Your task to perform on an android device: Clear all items from cart on target.com. Add "usb-a to usb-b" to the cart on target.com, then select checkout. Image 0: 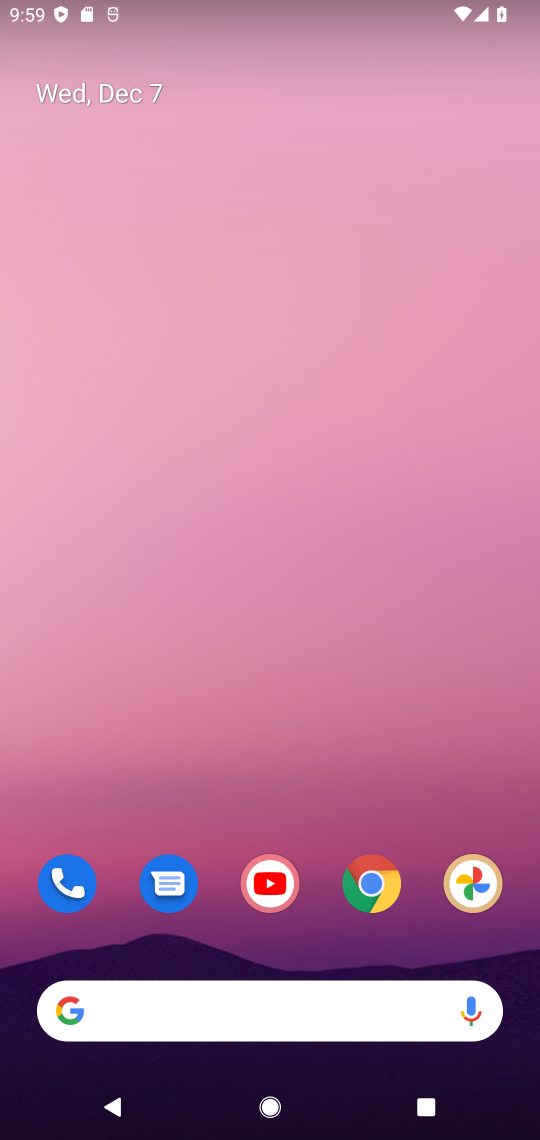
Step 0: drag from (267, 943) to (299, 235)
Your task to perform on an android device: Clear all items from cart on target.com. Add "usb-a to usb-b" to the cart on target.com, then select checkout. Image 1: 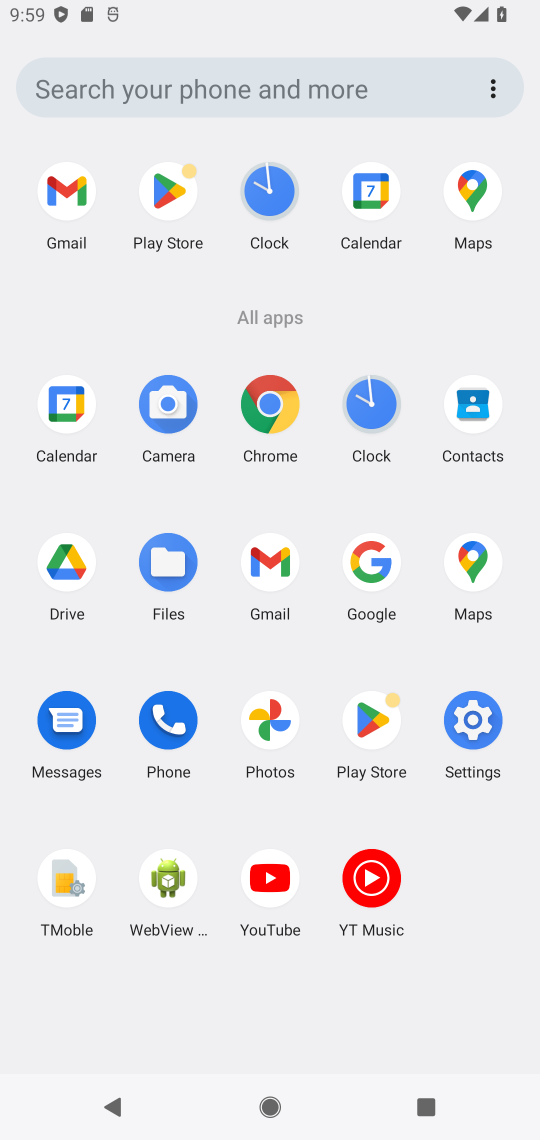
Step 1: click (359, 558)
Your task to perform on an android device: Clear all items from cart on target.com. Add "usb-a to usb-b" to the cart on target.com, then select checkout. Image 2: 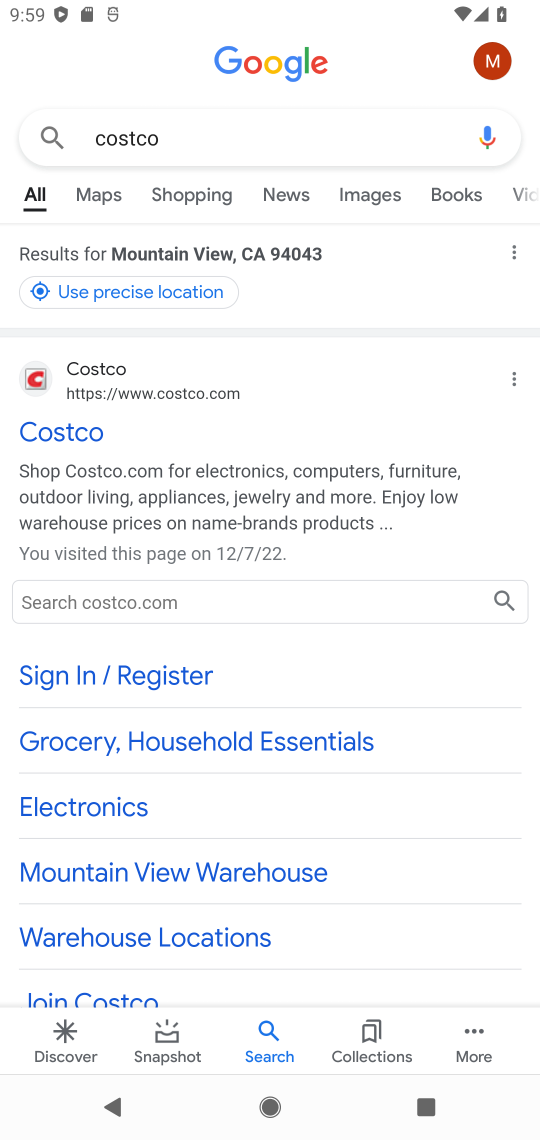
Step 2: click (196, 140)
Your task to perform on an android device: Clear all items from cart on target.com. Add "usb-a to usb-b" to the cart on target.com, then select checkout. Image 3: 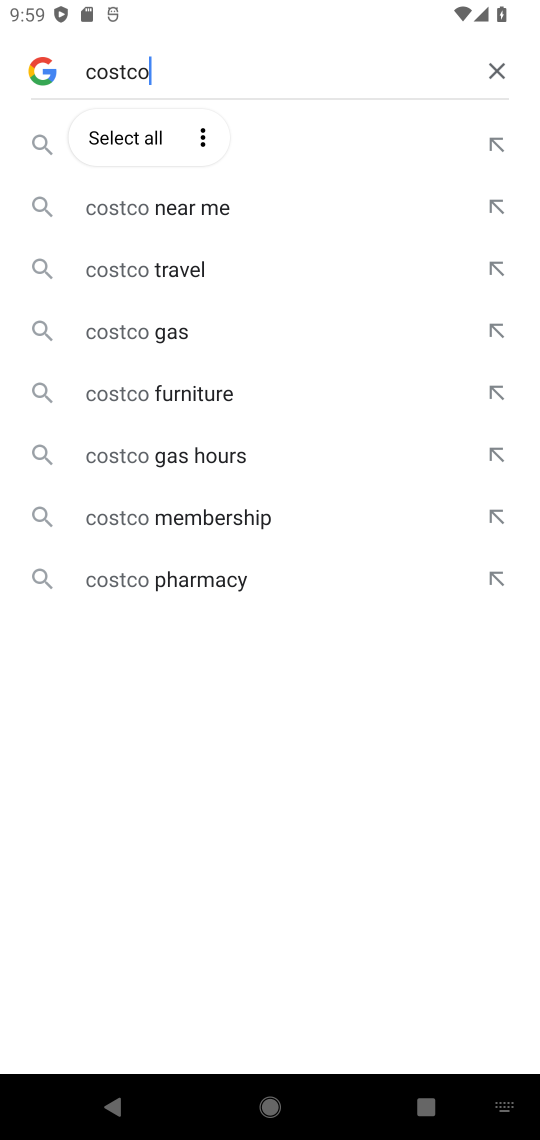
Step 3: click (503, 64)
Your task to perform on an android device: Clear all items from cart on target.com. Add "usb-a to usb-b" to the cart on target.com, then select checkout. Image 4: 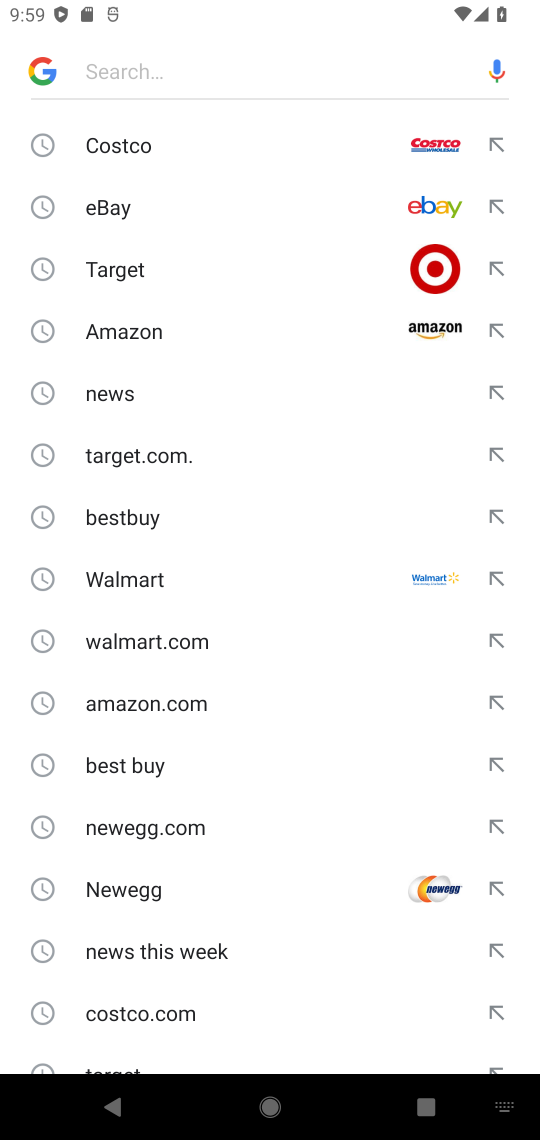
Step 4: click (431, 269)
Your task to perform on an android device: Clear all items from cart on target.com. Add "usb-a to usb-b" to the cart on target.com, then select checkout. Image 5: 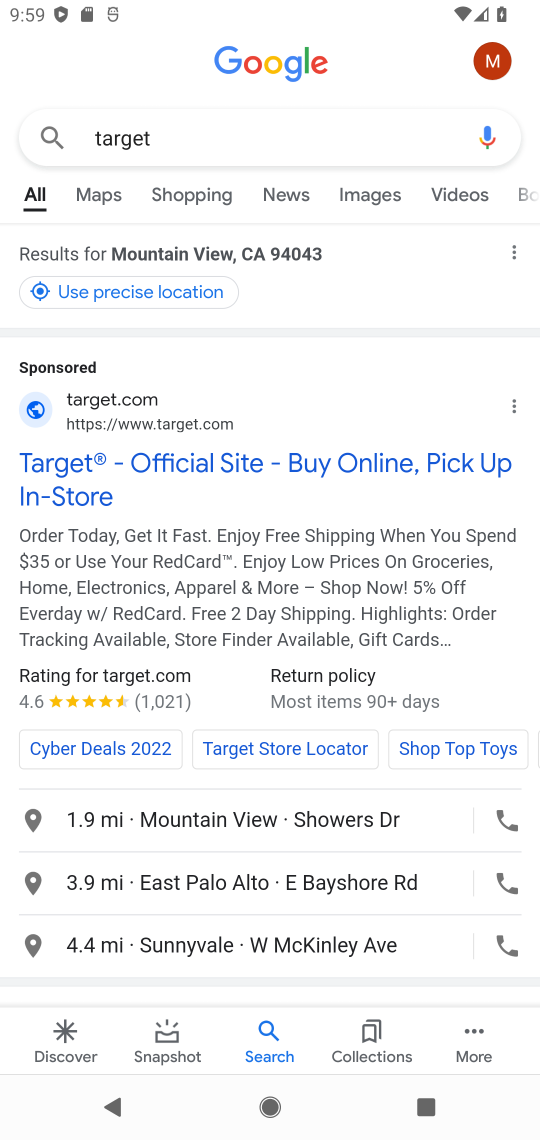
Step 5: click (224, 462)
Your task to perform on an android device: Clear all items from cart on target.com. Add "usb-a to usb-b" to the cart on target.com, then select checkout. Image 6: 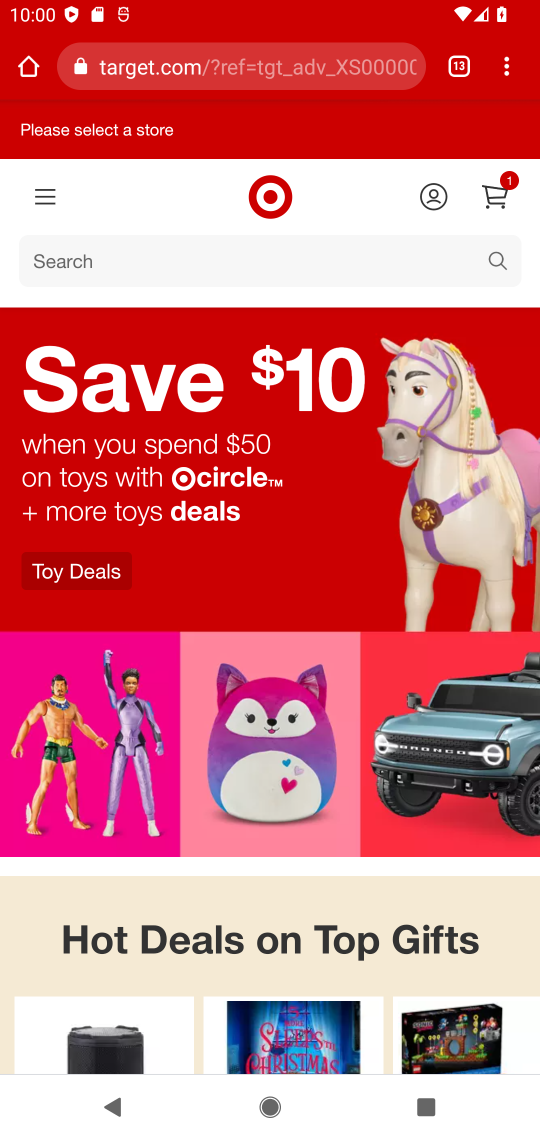
Step 6: click (183, 268)
Your task to perform on an android device: Clear all items from cart on target.com. Add "usb-a to usb-b" to the cart on target.com, then select checkout. Image 7: 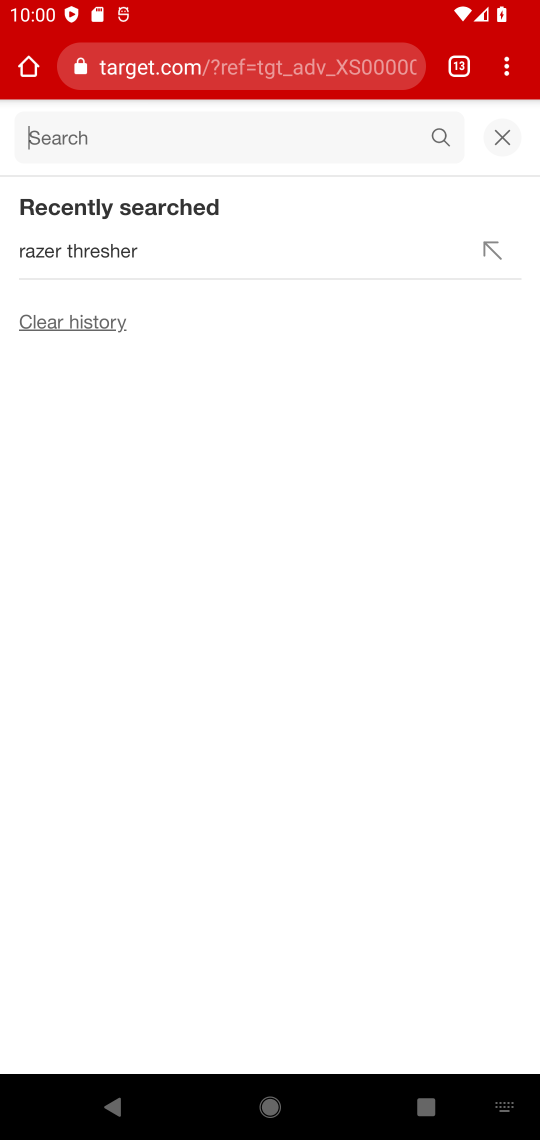
Step 7: click (498, 132)
Your task to perform on an android device: Clear all items from cart on target.com. Add "usb-a to usb-b" to the cart on target.com, then select checkout. Image 8: 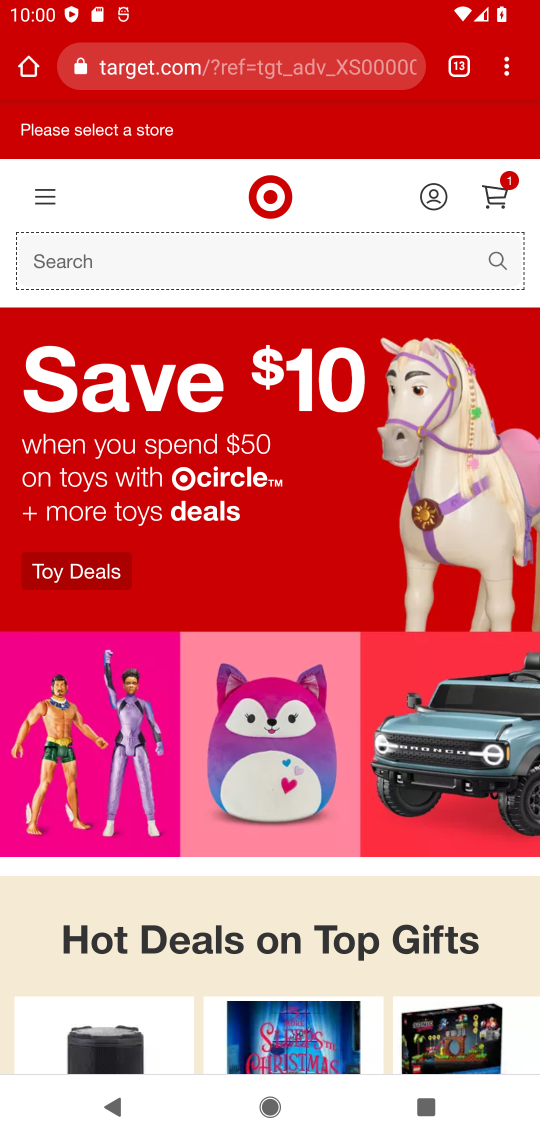
Step 8: click (489, 197)
Your task to perform on an android device: Clear all items from cart on target.com. Add "usb-a to usb-b" to the cart on target.com, then select checkout. Image 9: 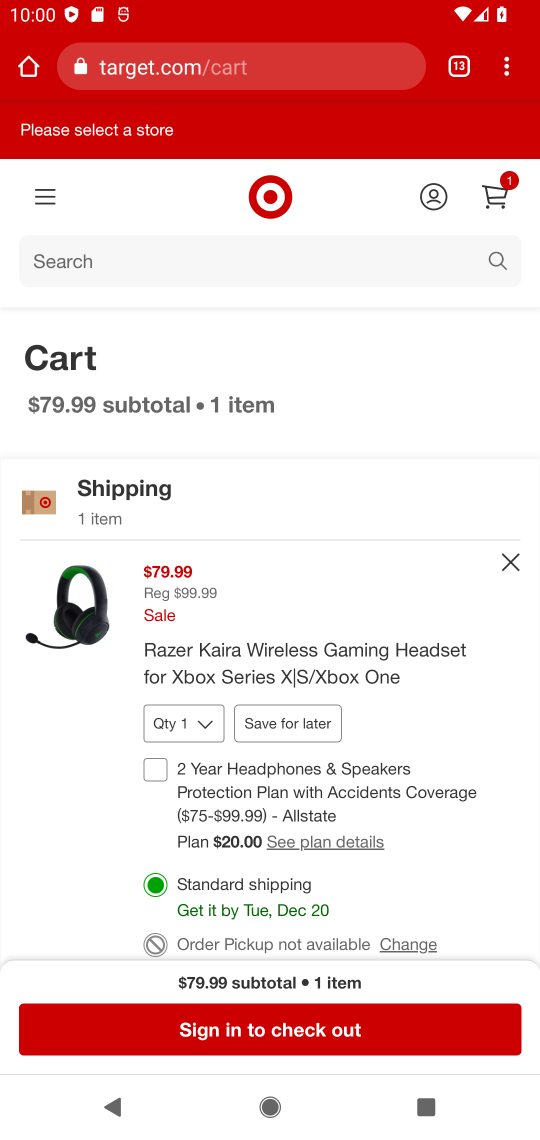
Step 9: drag from (315, 844) to (328, 535)
Your task to perform on an android device: Clear all items from cart on target.com. Add "usb-a to usb-b" to the cart on target.com, then select checkout. Image 10: 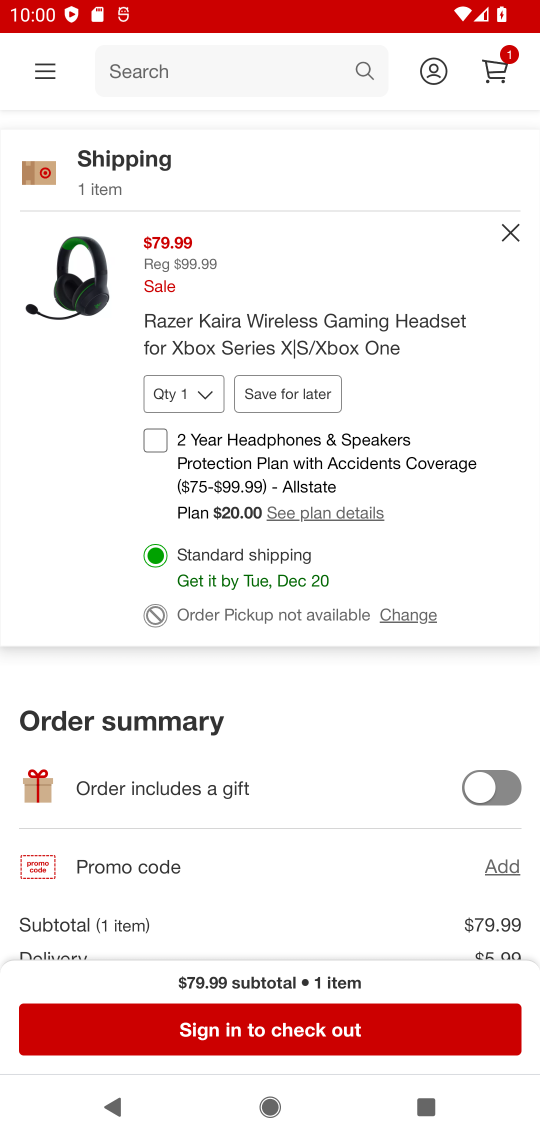
Step 10: click (300, 391)
Your task to perform on an android device: Clear all items from cart on target.com. Add "usb-a to usb-b" to the cart on target.com, then select checkout. Image 11: 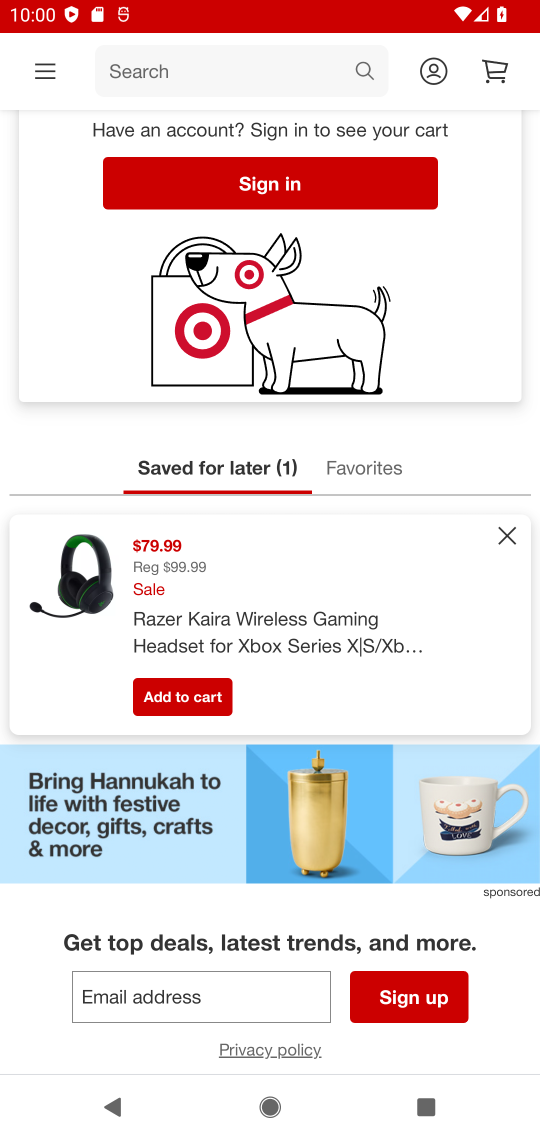
Step 11: click (512, 531)
Your task to perform on an android device: Clear all items from cart on target.com. Add "usb-a to usb-b" to the cart on target.com, then select checkout. Image 12: 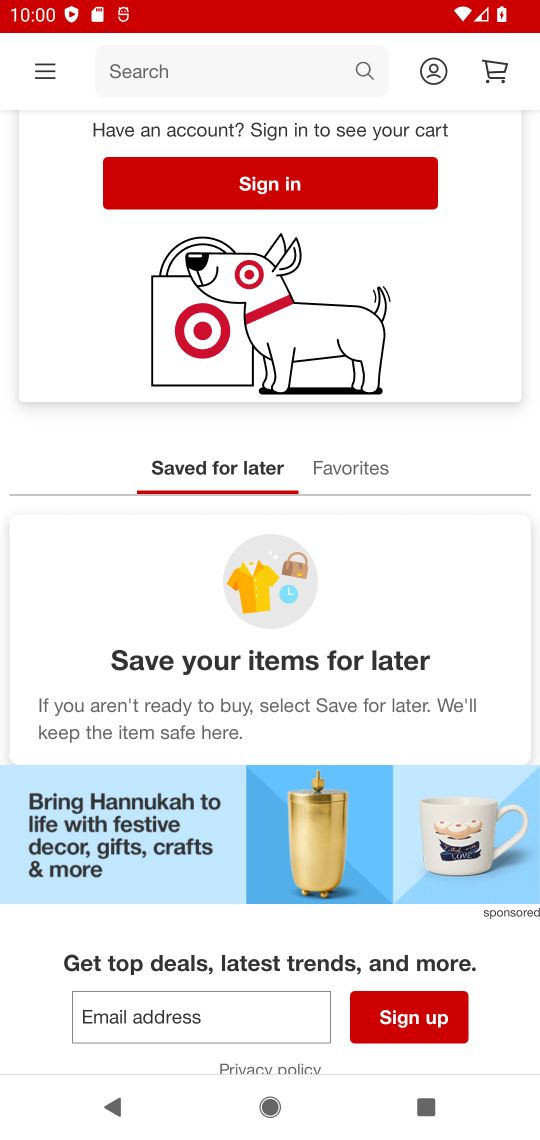
Step 12: click (357, 73)
Your task to perform on an android device: Clear all items from cart on target.com. Add "usb-a to usb-b" to the cart on target.com, then select checkout. Image 13: 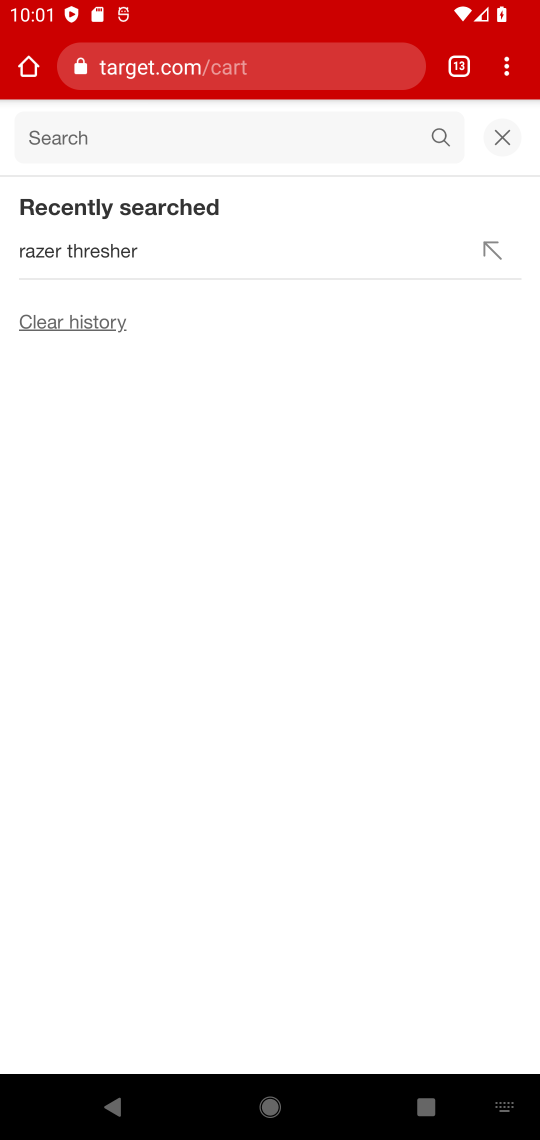
Step 13: type "usb-a to usb-b"
Your task to perform on an android device: Clear all items from cart on target.com. Add "usb-a to usb-b" to the cart on target.com, then select checkout. Image 14: 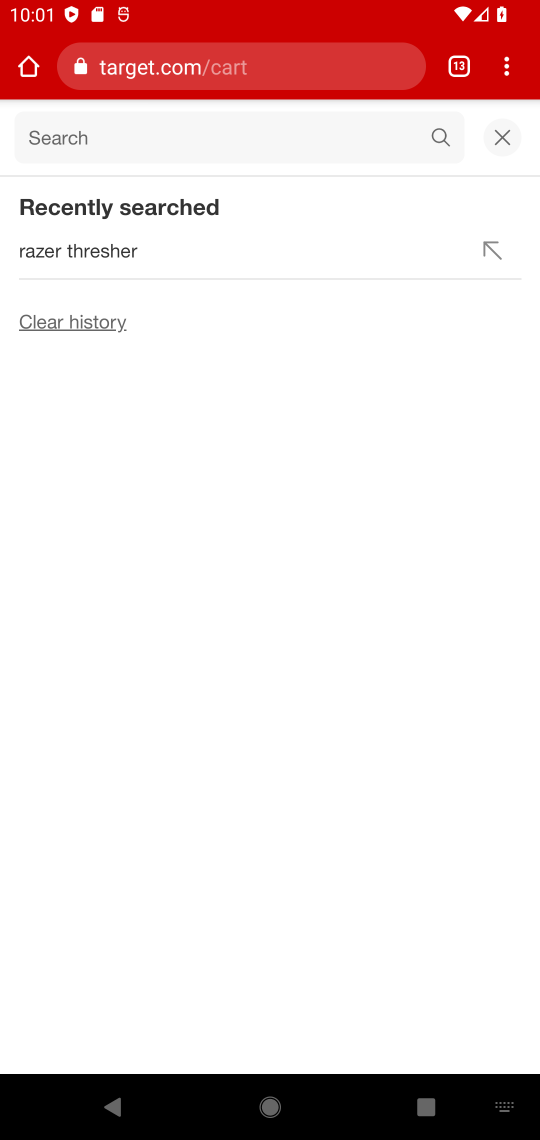
Step 14: click (440, 134)
Your task to perform on an android device: Clear all items from cart on target.com. Add "usb-a to usb-b" to the cart on target.com, then select checkout. Image 15: 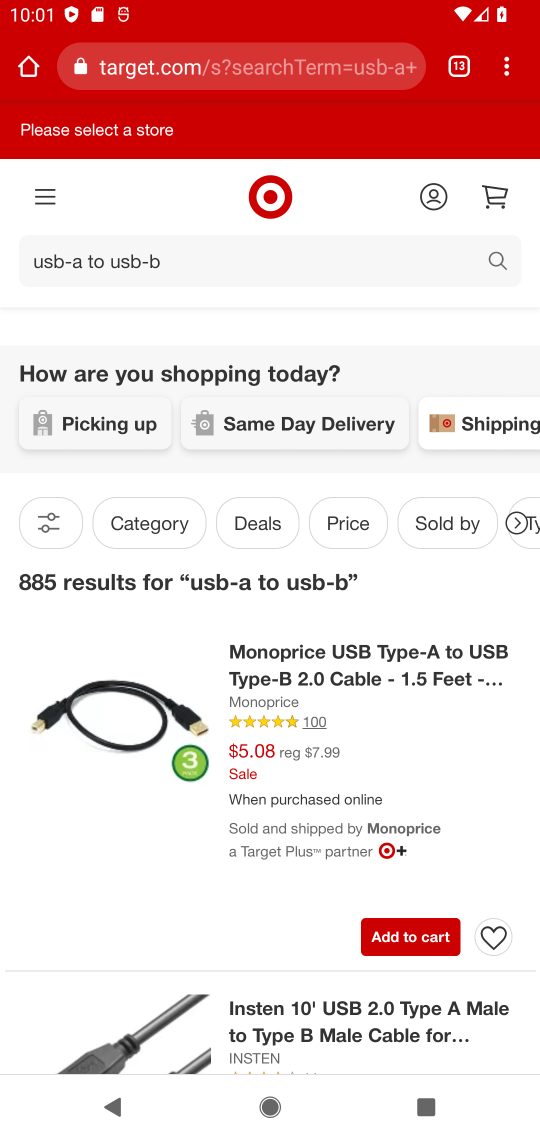
Step 15: click (432, 932)
Your task to perform on an android device: Clear all items from cart on target.com. Add "usb-a to usb-b" to the cart on target.com, then select checkout. Image 16: 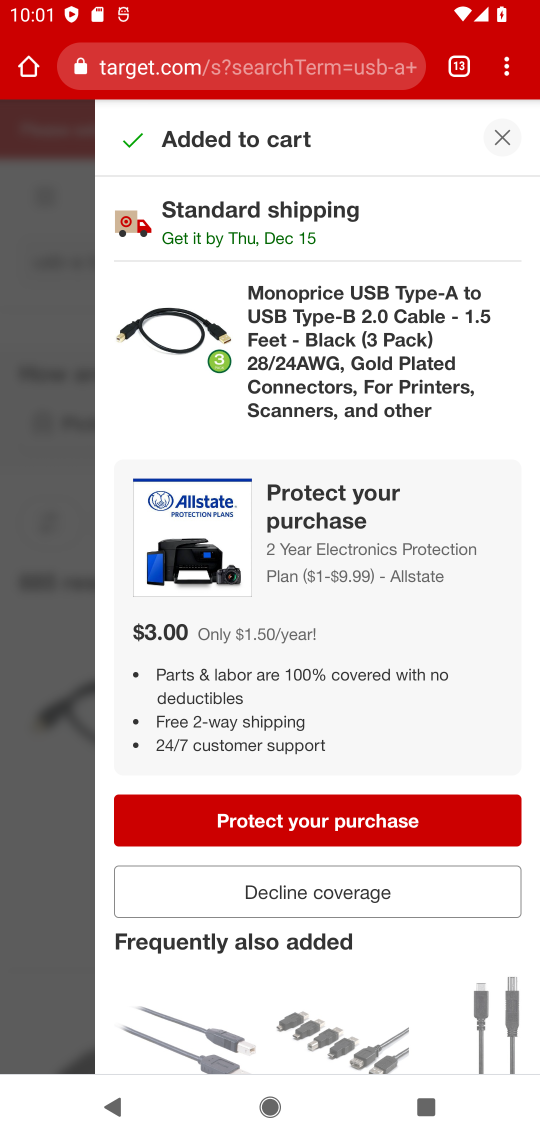
Step 16: click (490, 144)
Your task to perform on an android device: Clear all items from cart on target.com. Add "usb-a to usb-b" to the cart on target.com, then select checkout. Image 17: 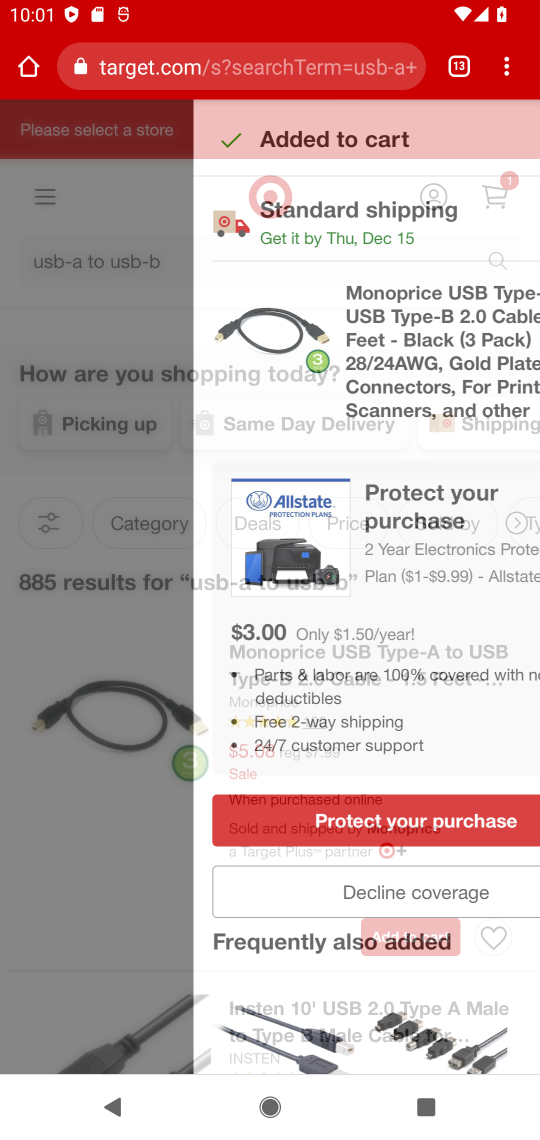
Step 17: click (34, 825)
Your task to perform on an android device: Clear all items from cart on target.com. Add "usb-a to usb-b" to the cart on target.com, then select checkout. Image 18: 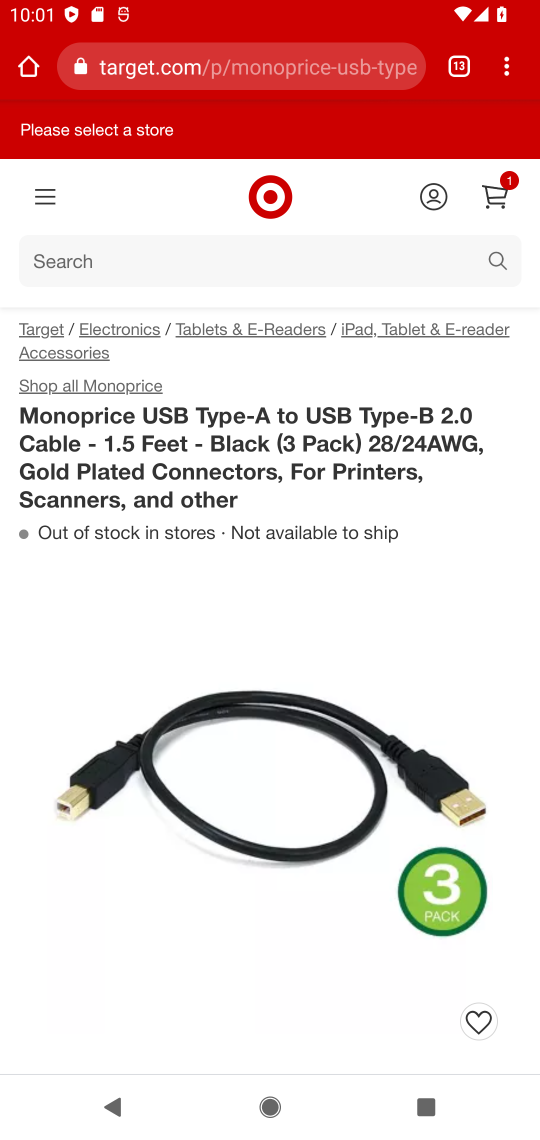
Step 18: click (489, 196)
Your task to perform on an android device: Clear all items from cart on target.com. Add "usb-a to usb-b" to the cart on target.com, then select checkout. Image 19: 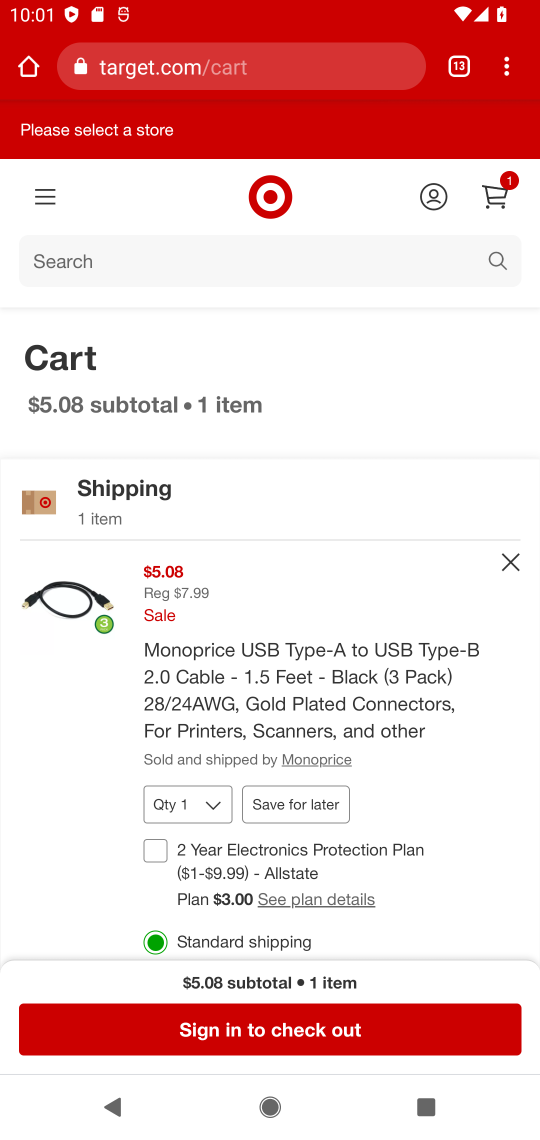
Step 19: click (290, 1033)
Your task to perform on an android device: Clear all items from cart on target.com. Add "usb-a to usb-b" to the cart on target.com, then select checkout. Image 20: 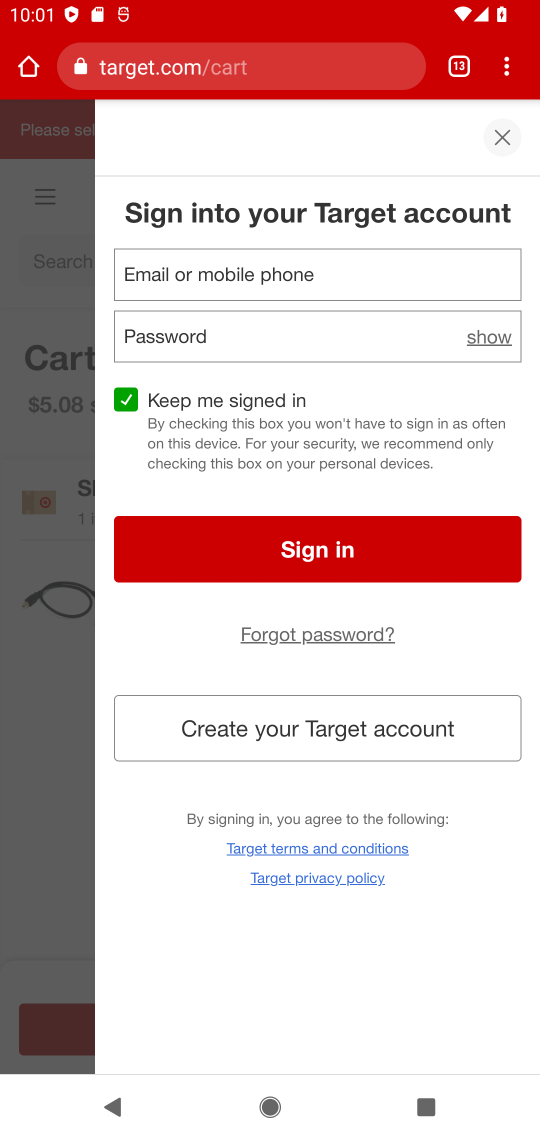
Step 20: task complete